Your task to perform on an android device: open a new tab in the chrome app Image 0: 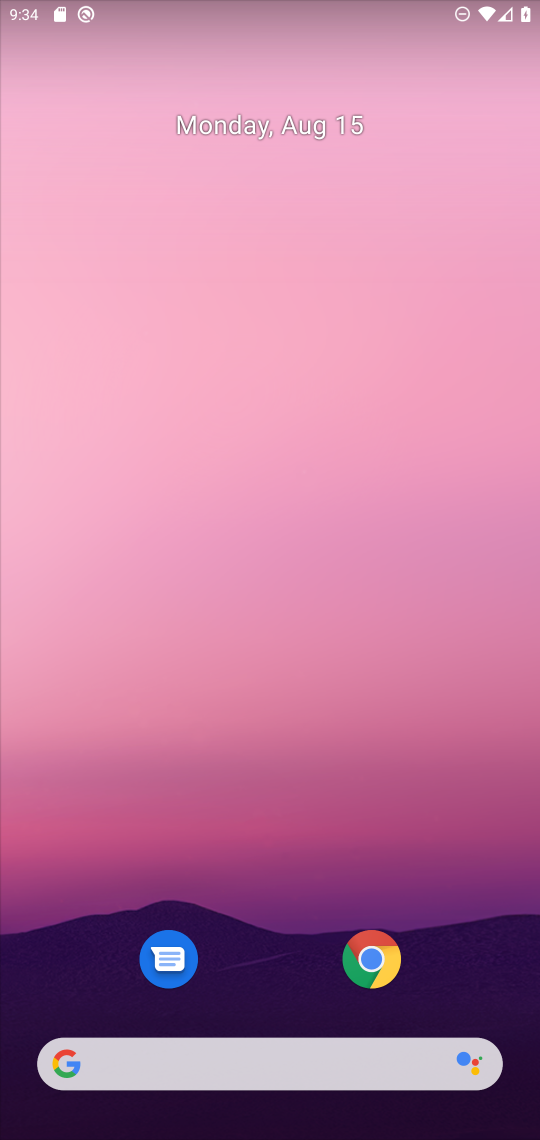
Step 0: drag from (310, 1030) to (151, 89)
Your task to perform on an android device: open a new tab in the chrome app Image 1: 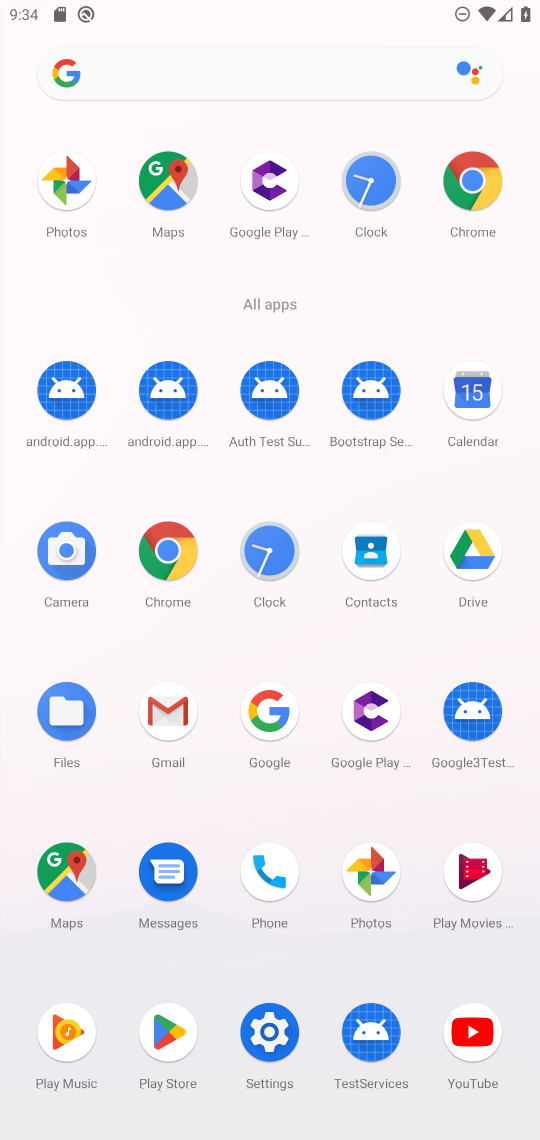
Step 1: click (172, 541)
Your task to perform on an android device: open a new tab in the chrome app Image 2: 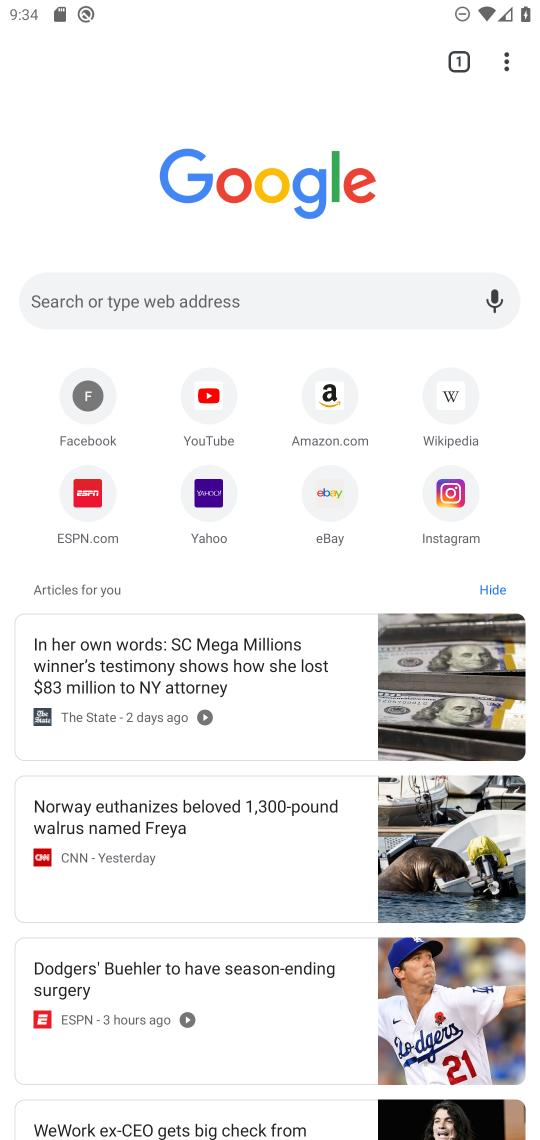
Step 2: click (451, 40)
Your task to perform on an android device: open a new tab in the chrome app Image 3: 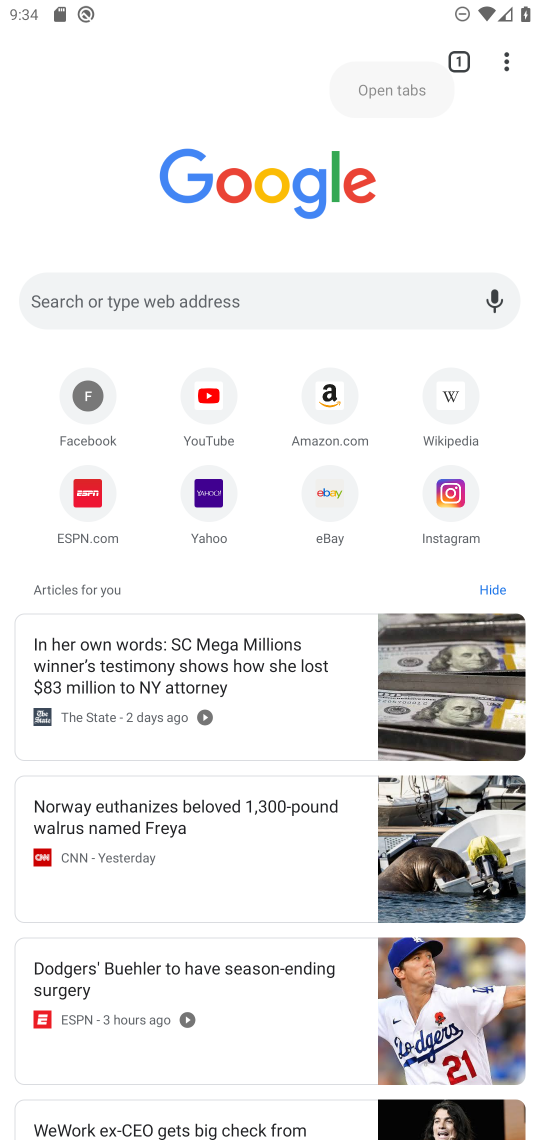
Step 3: click (446, 62)
Your task to perform on an android device: open a new tab in the chrome app Image 4: 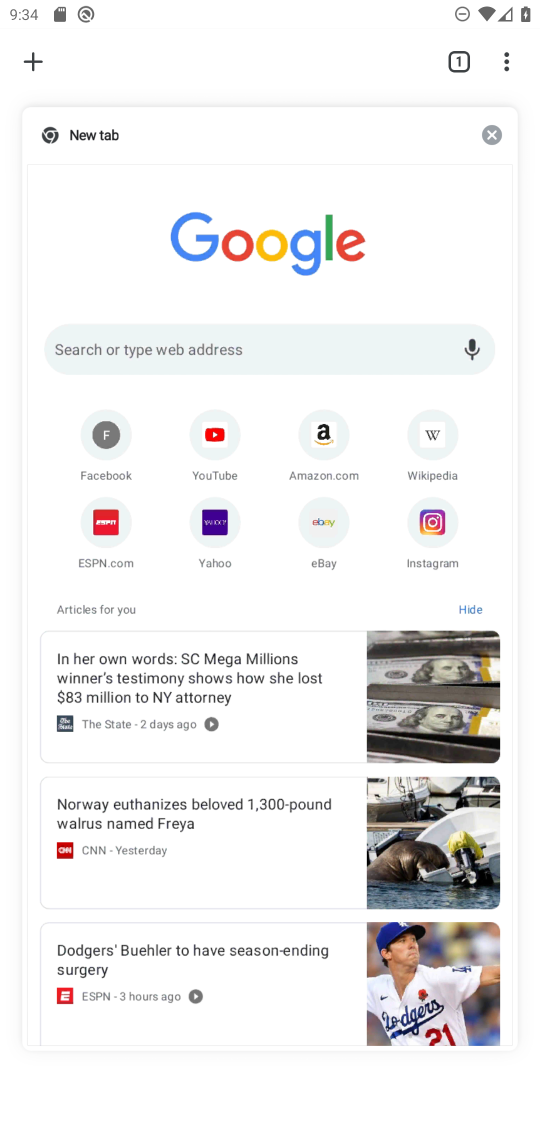
Step 4: click (39, 59)
Your task to perform on an android device: open a new tab in the chrome app Image 5: 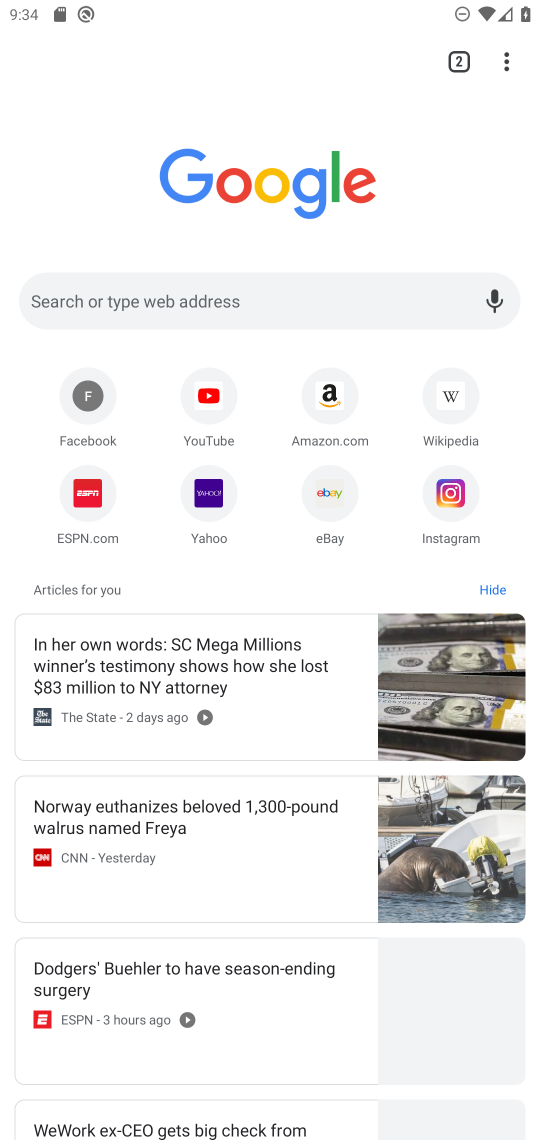
Step 5: task complete